Your task to perform on an android device: Search for the best lawnmowers on Lowes.com Image 0: 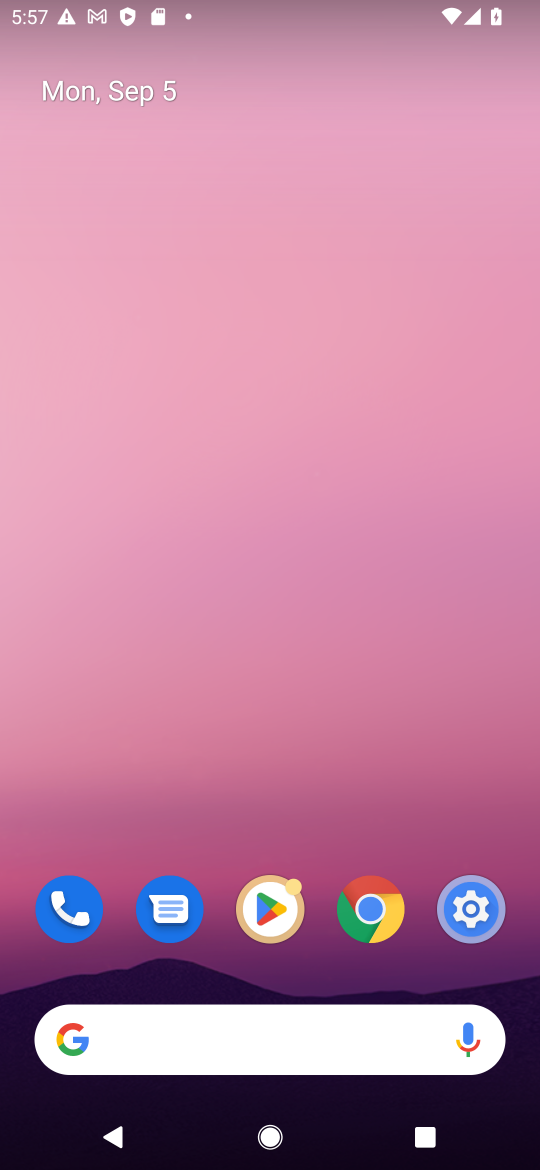
Step 0: drag from (281, 1004) to (249, 12)
Your task to perform on an android device: Search for the best lawnmowers on Lowes.com Image 1: 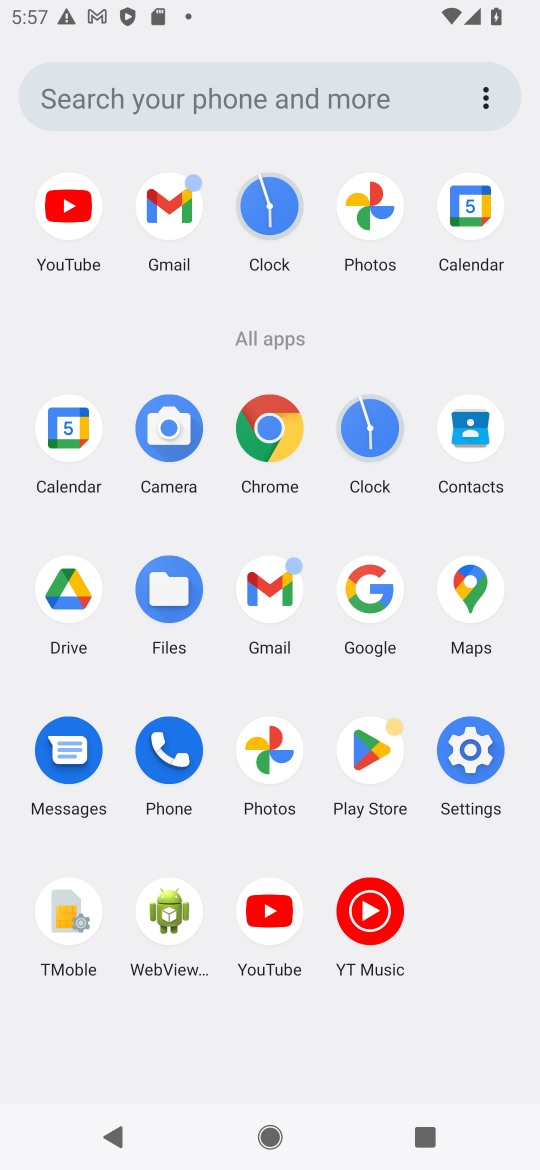
Step 1: click (379, 597)
Your task to perform on an android device: Search for the best lawnmowers on Lowes.com Image 2: 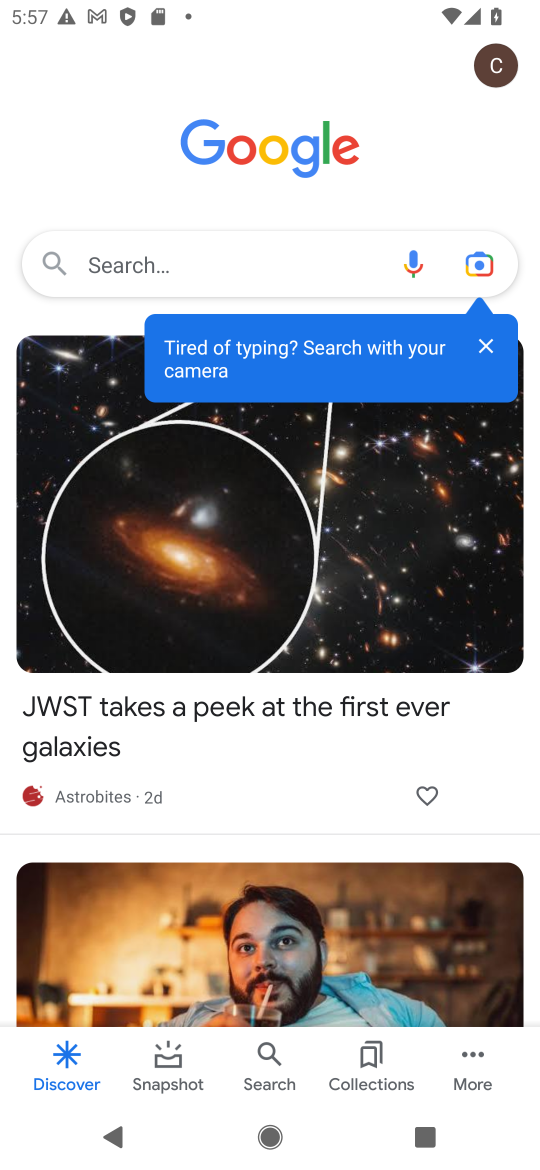
Step 2: click (173, 244)
Your task to perform on an android device: Search for the best lawnmowers on Lowes.com Image 3: 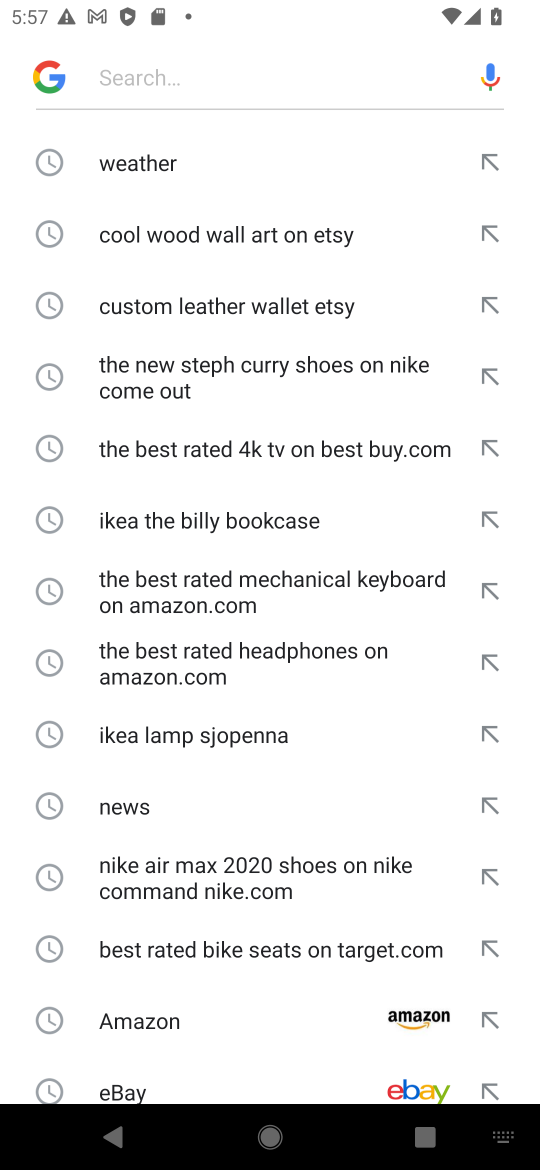
Step 3: type "Lowes.com"
Your task to perform on an android device: Search for the best lawnmowers on Lowes.com Image 4: 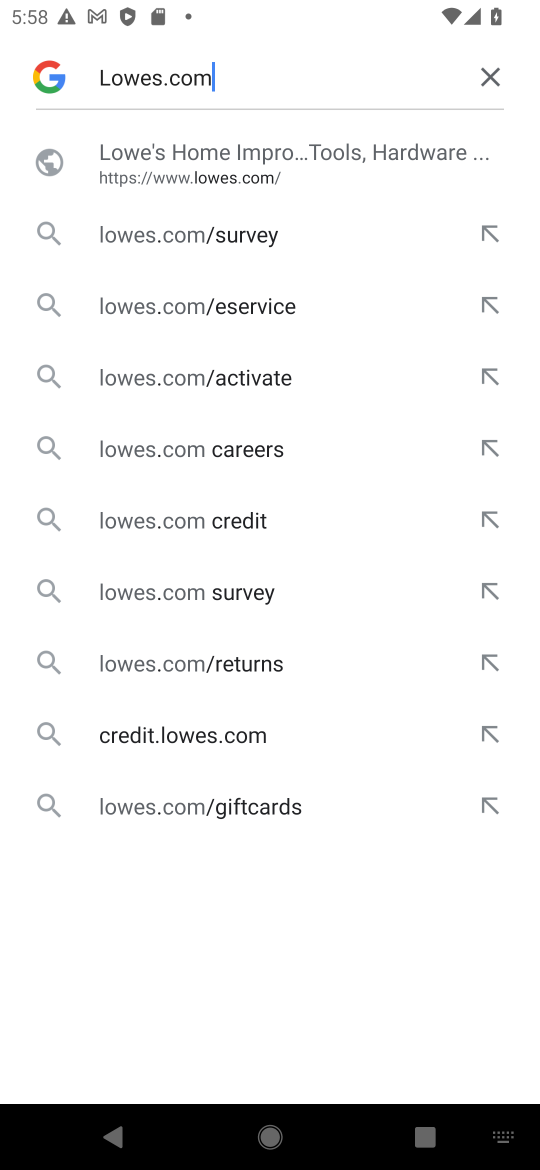
Step 4: click (155, 164)
Your task to perform on an android device: Search for the best lawnmowers on Lowes.com Image 5: 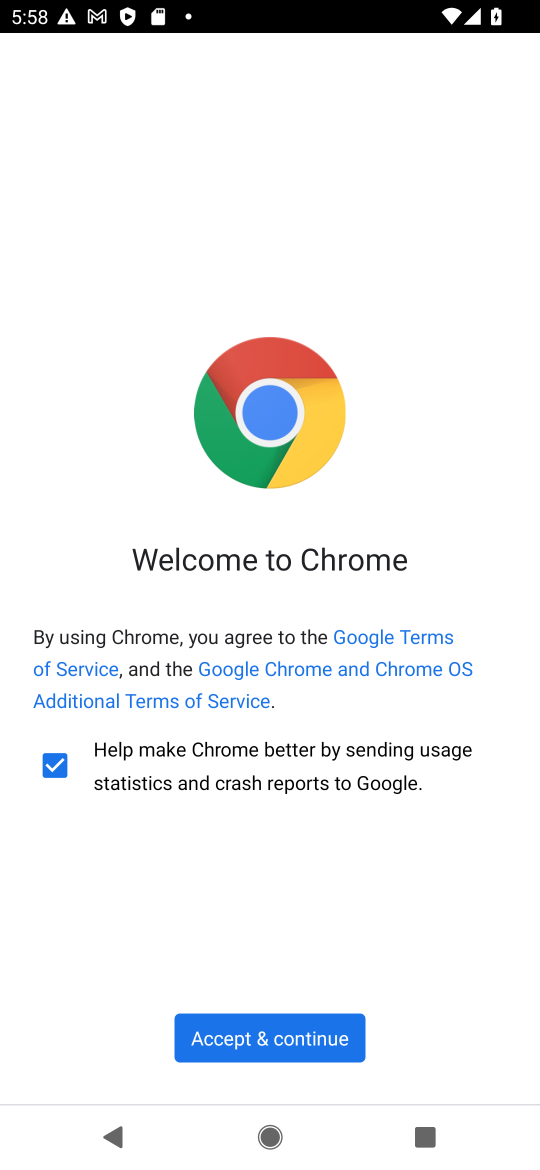
Step 5: click (263, 1046)
Your task to perform on an android device: Search for the best lawnmowers on Lowes.com Image 6: 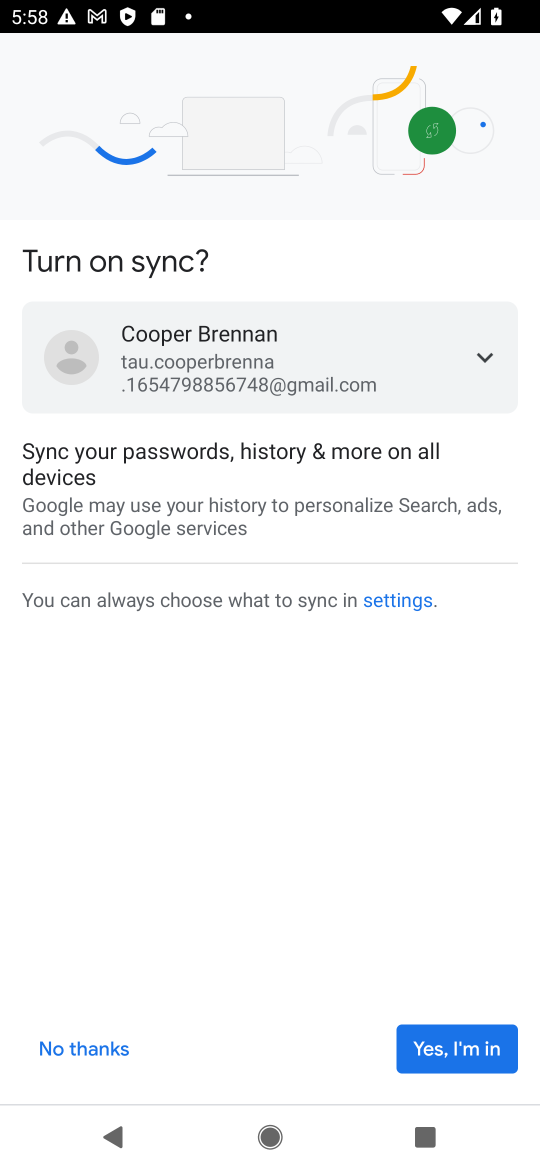
Step 6: click (456, 1057)
Your task to perform on an android device: Search for the best lawnmowers on Lowes.com Image 7: 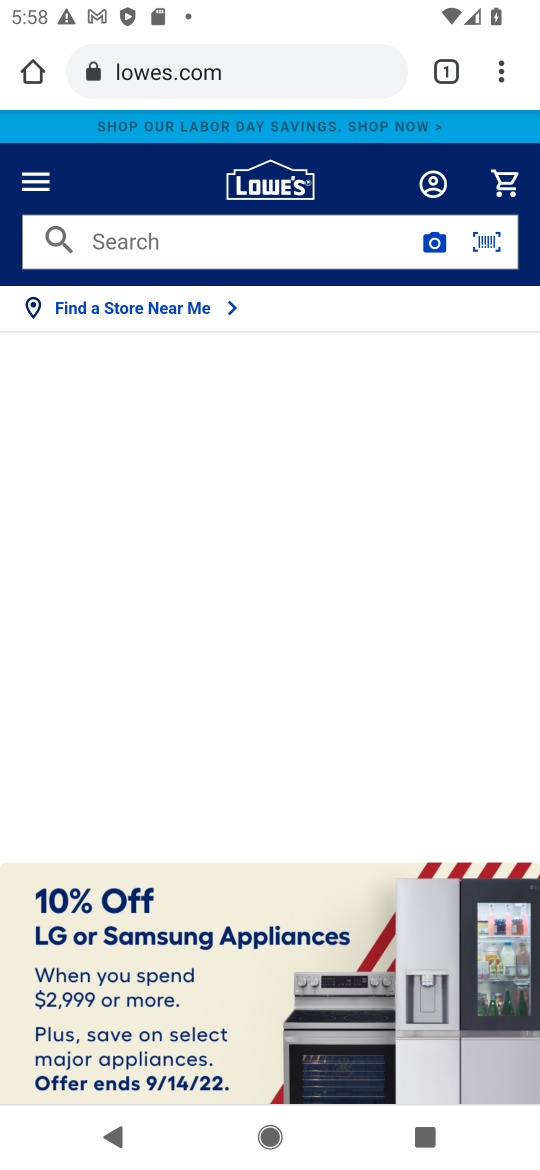
Step 7: click (118, 239)
Your task to perform on an android device: Search for the best lawnmowers on Lowes.com Image 8: 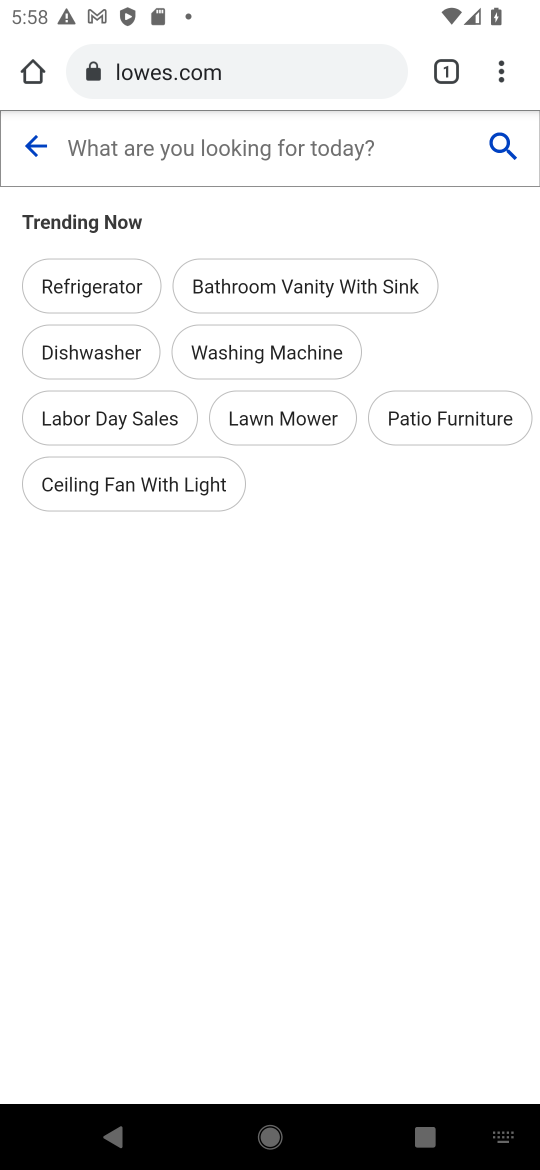
Step 8: type "best lawnmowers"
Your task to perform on an android device: Search for the best lawnmowers on Lowes.com Image 9: 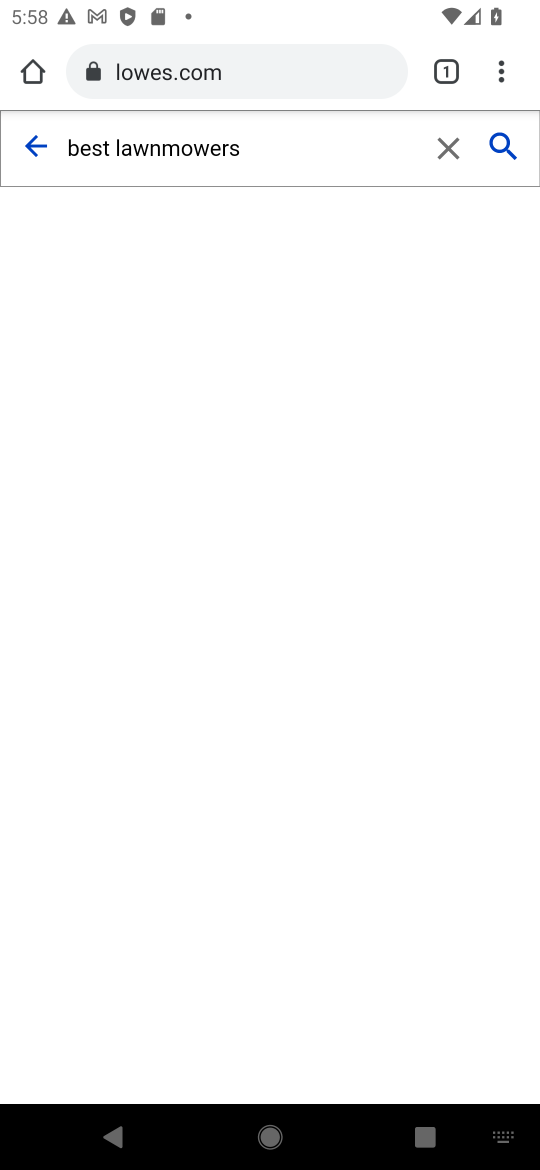
Step 9: click (511, 142)
Your task to perform on an android device: Search for the best lawnmowers on Lowes.com Image 10: 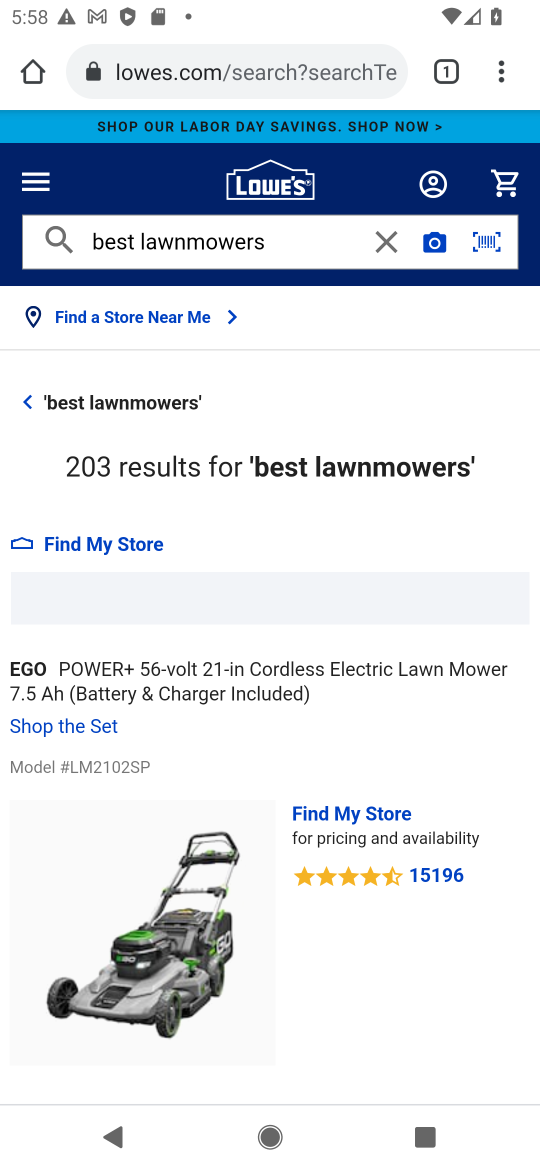
Step 10: click (252, 366)
Your task to perform on an android device: Search for the best lawnmowers on Lowes.com Image 11: 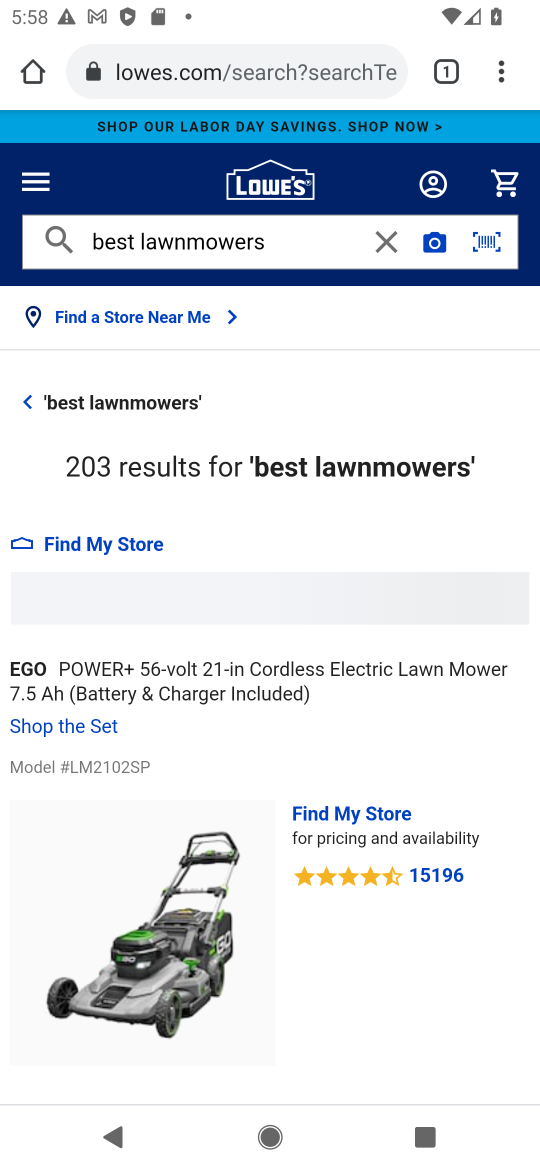
Step 11: task complete